Your task to perform on an android device: Open eBay Image 0: 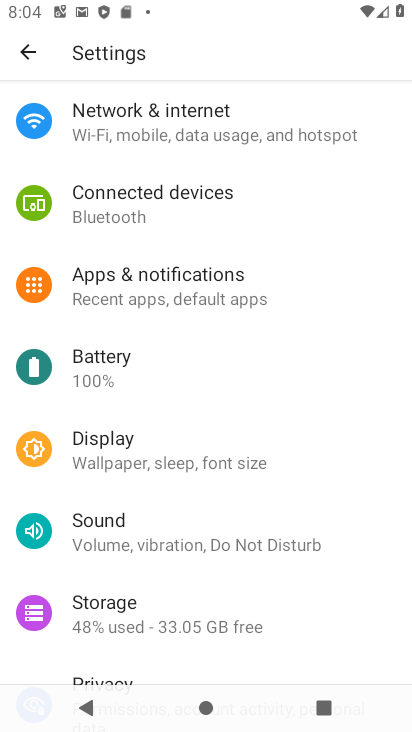
Step 0: press back button
Your task to perform on an android device: Open eBay Image 1: 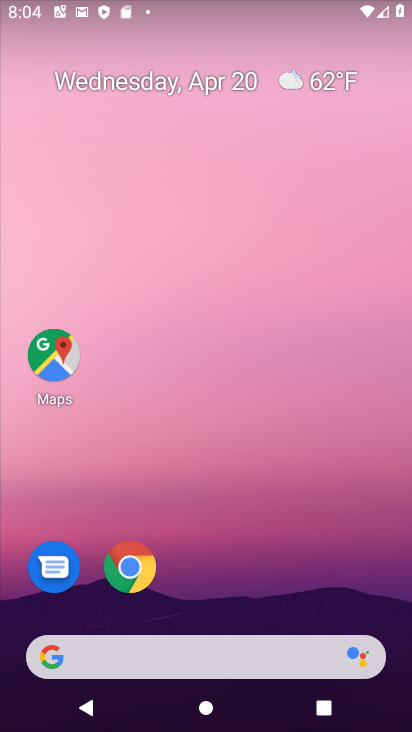
Step 1: drag from (239, 525) to (150, 25)
Your task to perform on an android device: Open eBay Image 2: 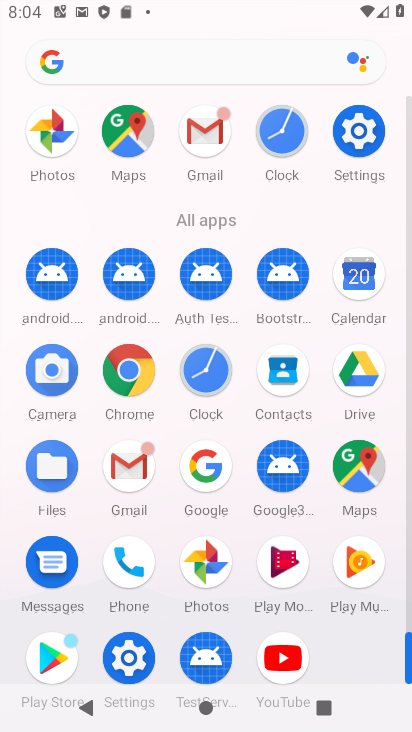
Step 2: click (129, 369)
Your task to perform on an android device: Open eBay Image 3: 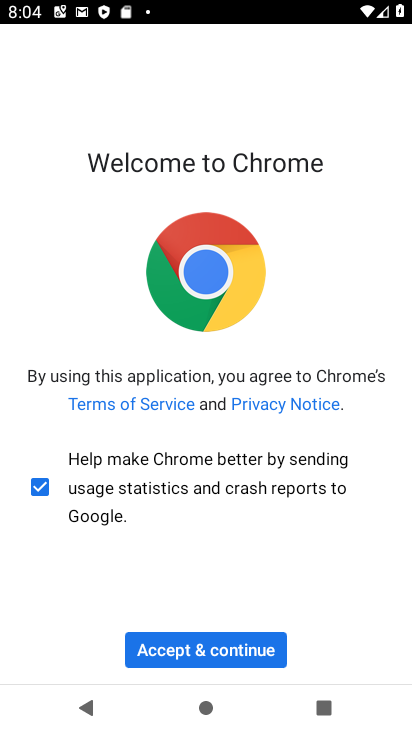
Step 3: click (203, 643)
Your task to perform on an android device: Open eBay Image 4: 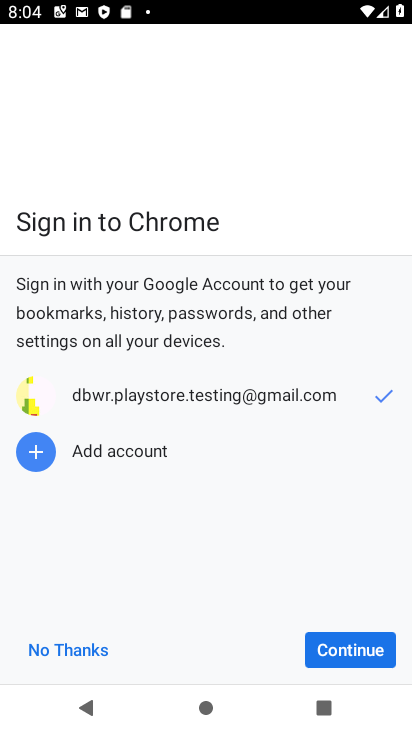
Step 4: click (379, 639)
Your task to perform on an android device: Open eBay Image 5: 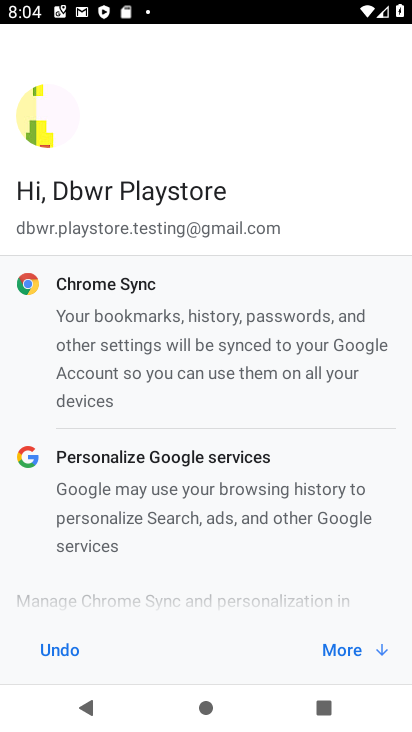
Step 5: click (347, 663)
Your task to perform on an android device: Open eBay Image 6: 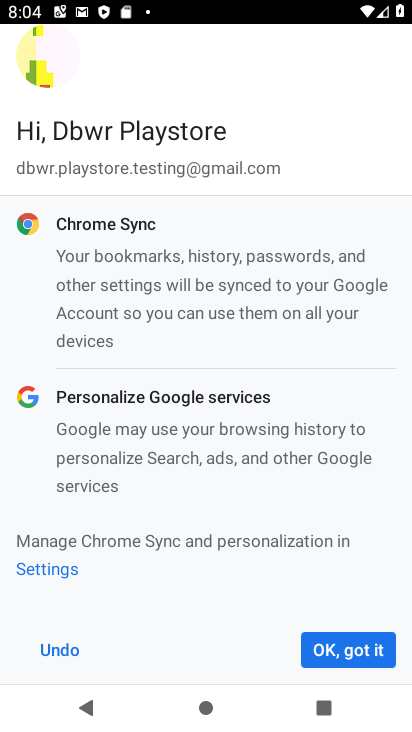
Step 6: click (354, 654)
Your task to perform on an android device: Open eBay Image 7: 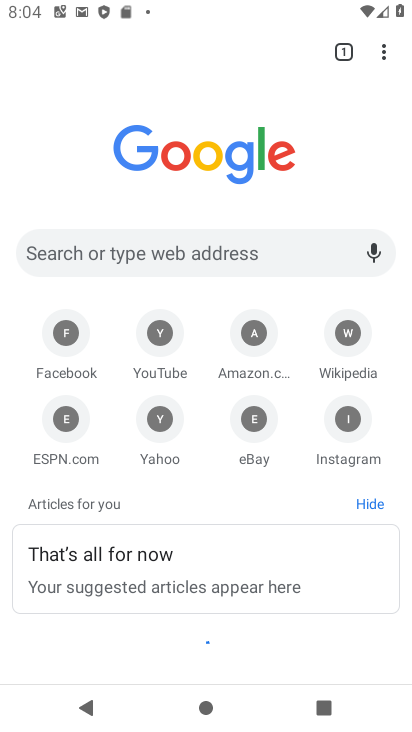
Step 7: click (255, 410)
Your task to perform on an android device: Open eBay Image 8: 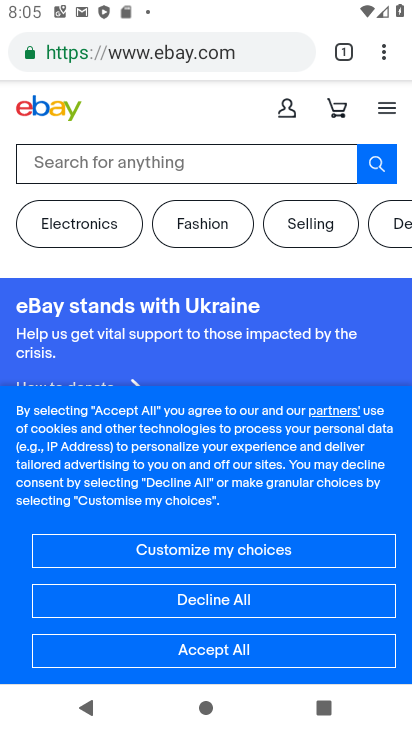
Step 8: task complete